Your task to perform on an android device: check data usage Image 0: 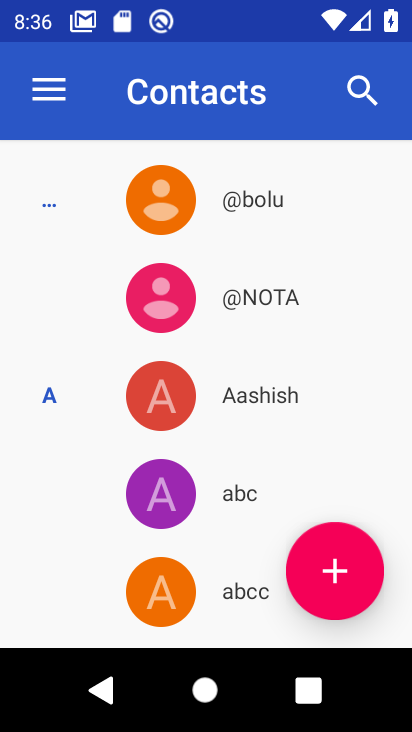
Step 0: press home button
Your task to perform on an android device: check data usage Image 1: 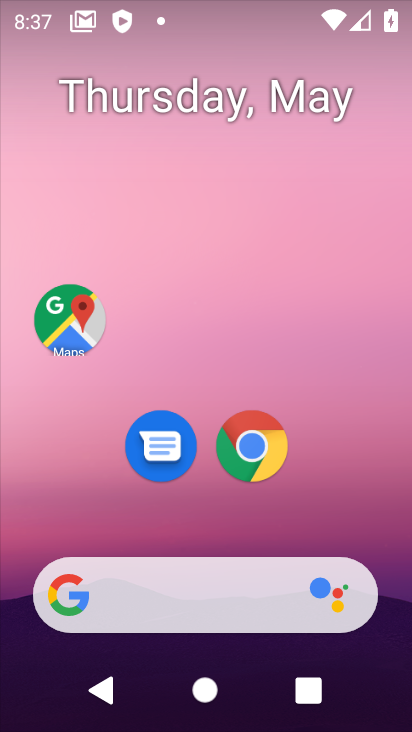
Step 1: drag from (271, 649) to (250, 231)
Your task to perform on an android device: check data usage Image 2: 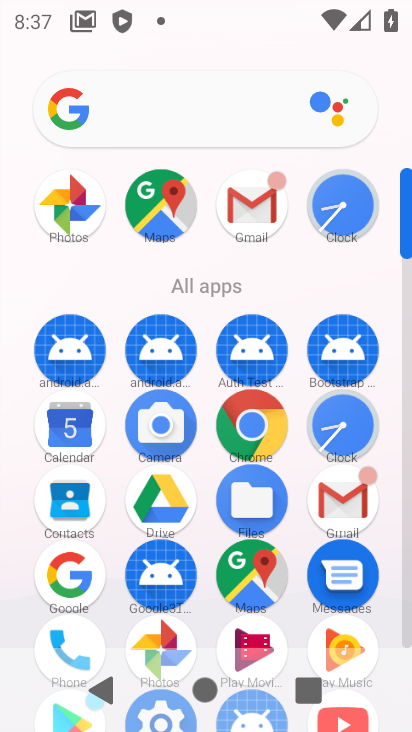
Step 2: drag from (124, 461) to (224, 306)
Your task to perform on an android device: check data usage Image 3: 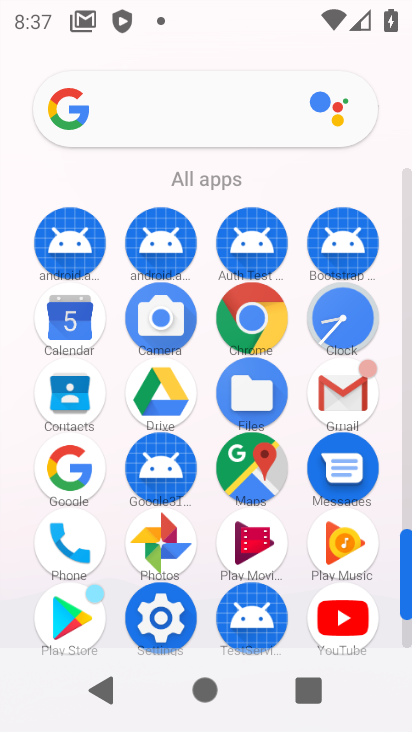
Step 3: click (176, 612)
Your task to perform on an android device: check data usage Image 4: 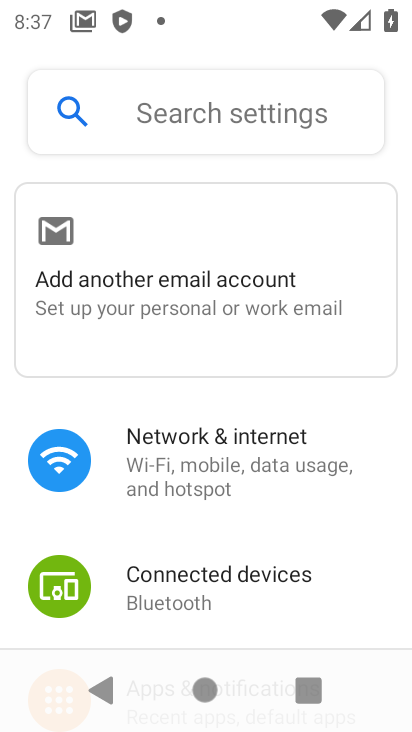
Step 4: click (219, 119)
Your task to perform on an android device: check data usage Image 5: 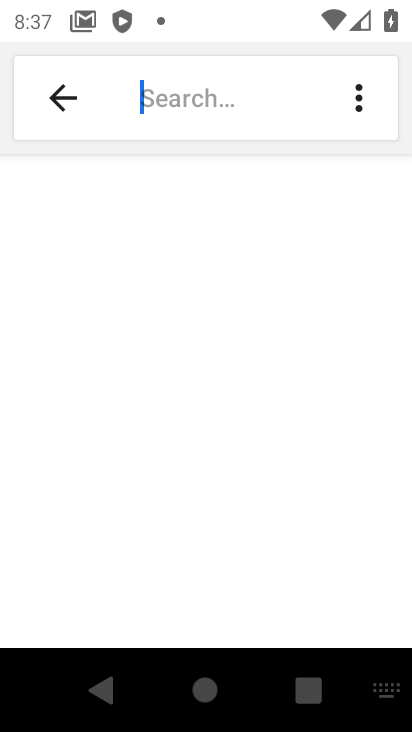
Step 5: click (396, 694)
Your task to perform on an android device: check data usage Image 6: 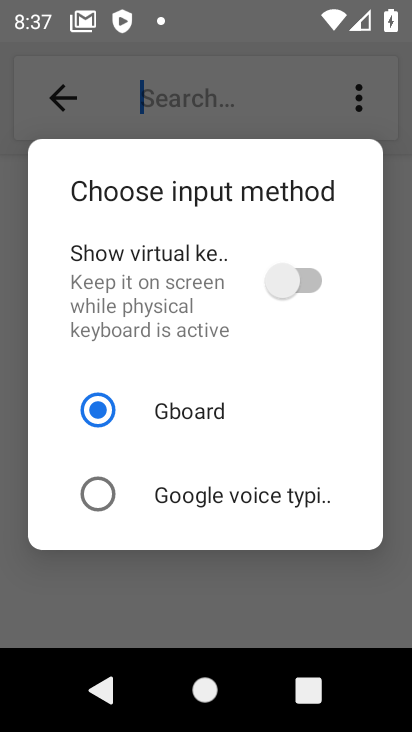
Step 6: click (302, 292)
Your task to perform on an android device: check data usage Image 7: 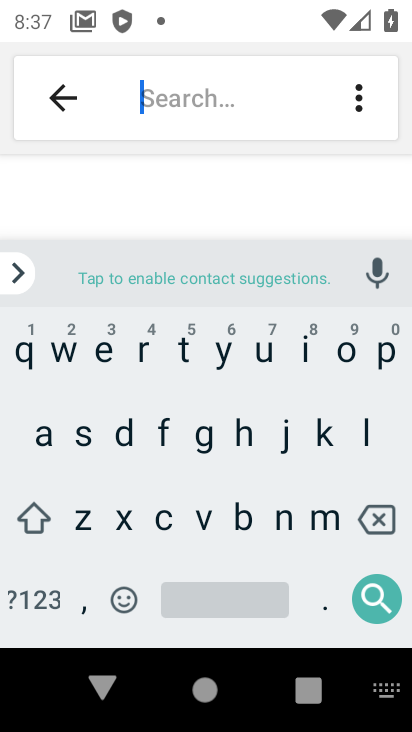
Step 7: click (116, 441)
Your task to perform on an android device: check data usage Image 8: 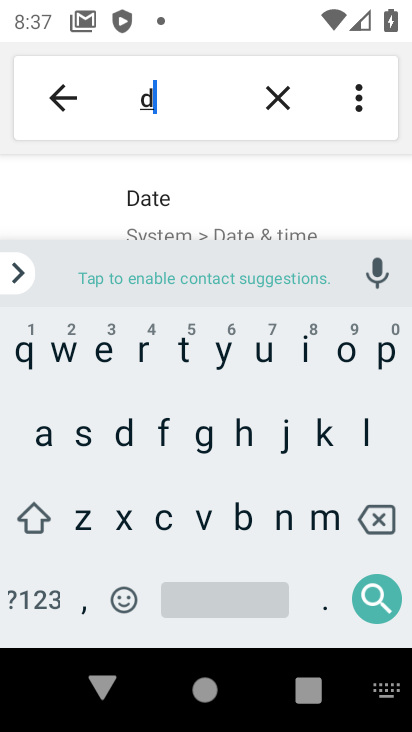
Step 8: click (38, 432)
Your task to perform on an android device: check data usage Image 9: 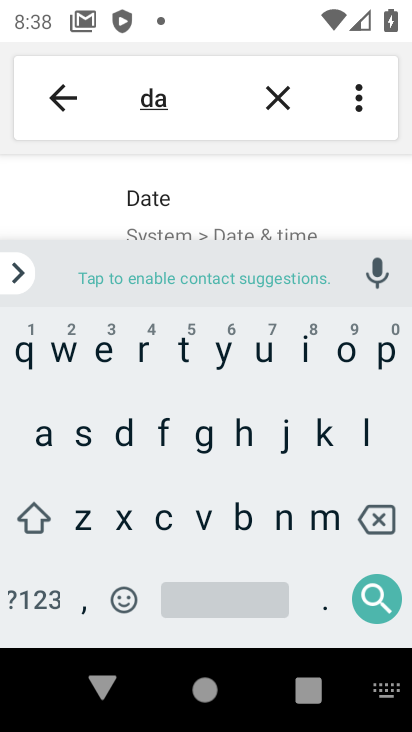
Step 9: click (183, 355)
Your task to perform on an android device: check data usage Image 10: 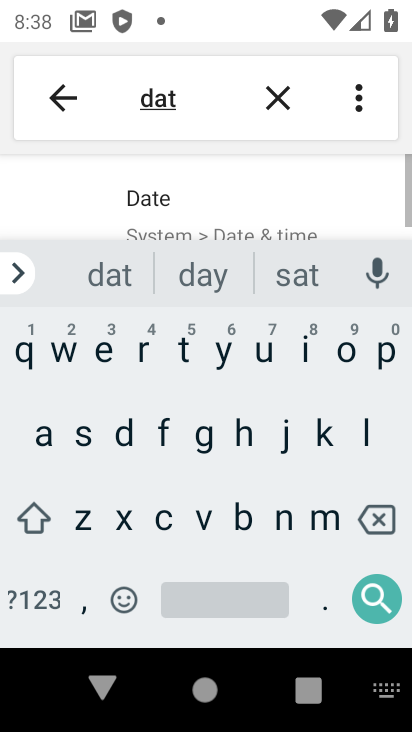
Step 10: click (40, 429)
Your task to perform on an android device: check data usage Image 11: 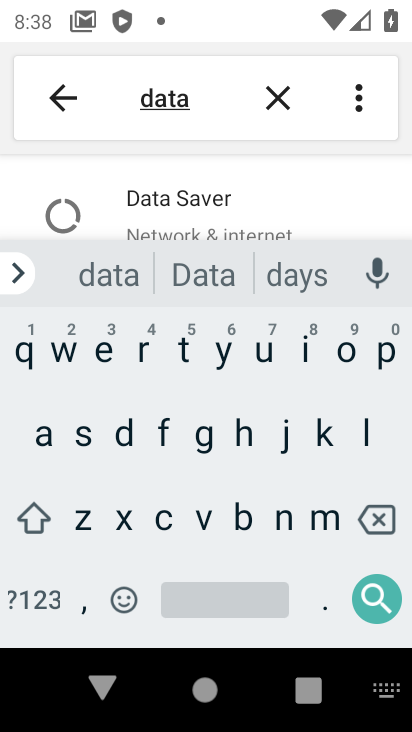
Step 11: click (199, 591)
Your task to perform on an android device: check data usage Image 12: 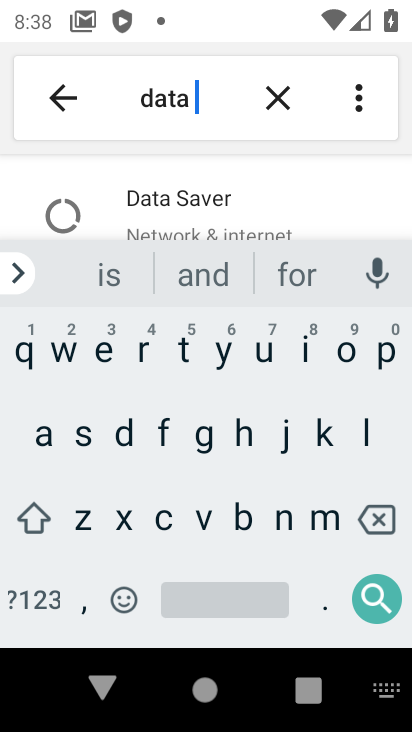
Step 12: click (261, 355)
Your task to perform on an android device: check data usage Image 13: 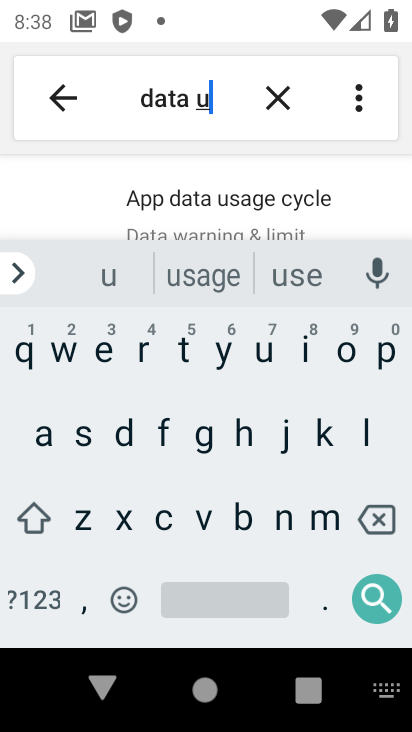
Step 13: click (80, 430)
Your task to perform on an android device: check data usage Image 14: 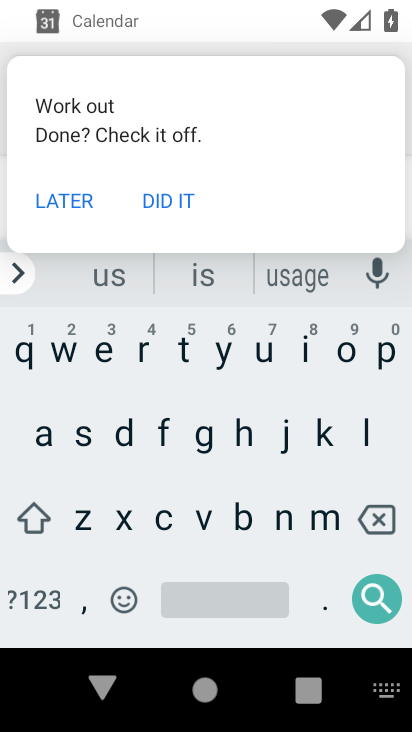
Step 14: click (73, 200)
Your task to perform on an android device: check data usage Image 15: 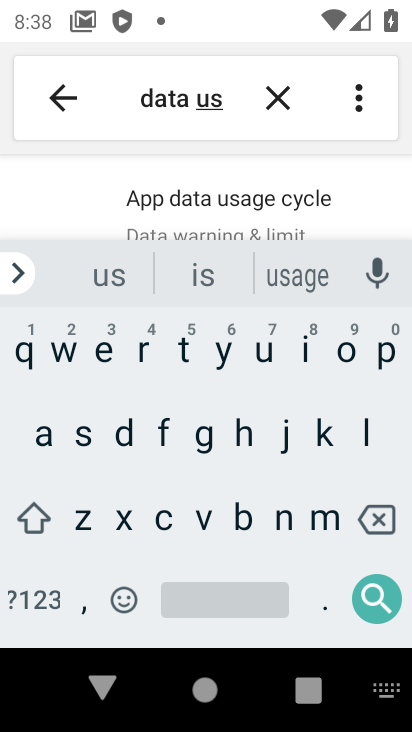
Step 15: press back button
Your task to perform on an android device: check data usage Image 16: 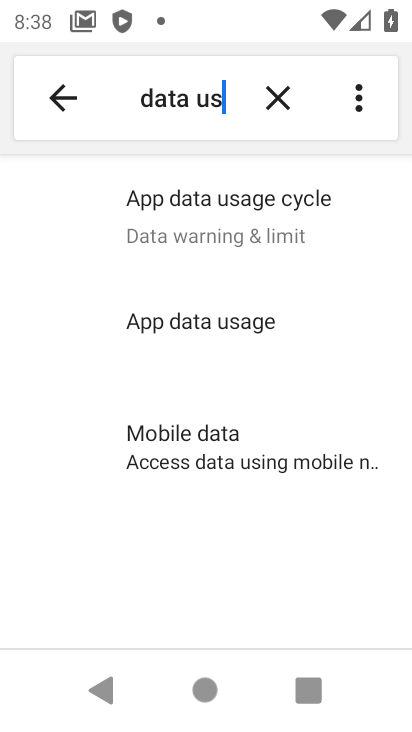
Step 16: click (174, 324)
Your task to perform on an android device: check data usage Image 17: 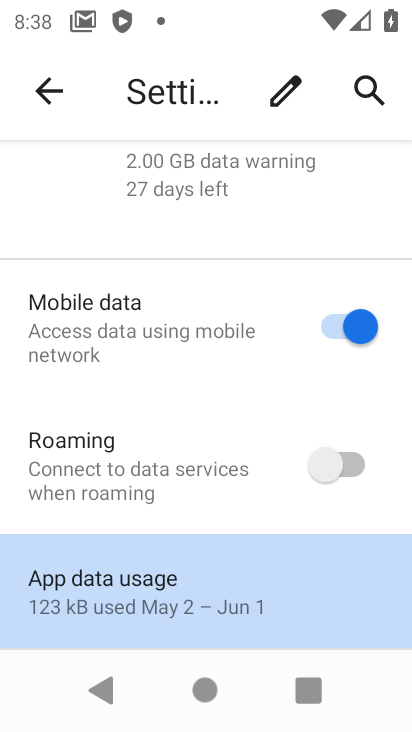
Step 17: click (166, 604)
Your task to perform on an android device: check data usage Image 18: 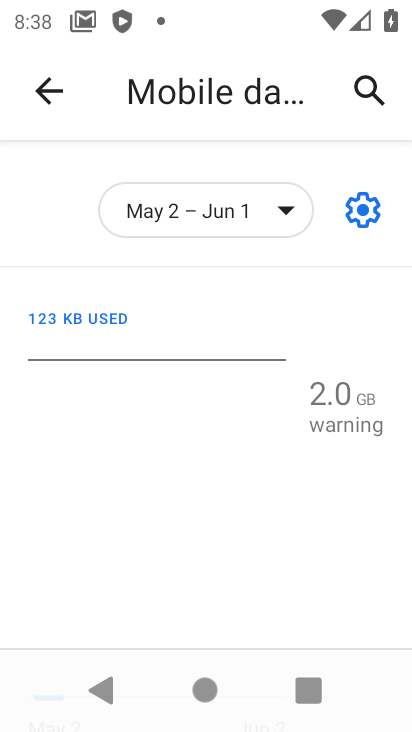
Step 18: task complete